Your task to perform on an android device: see tabs open on other devices in the chrome app Image 0: 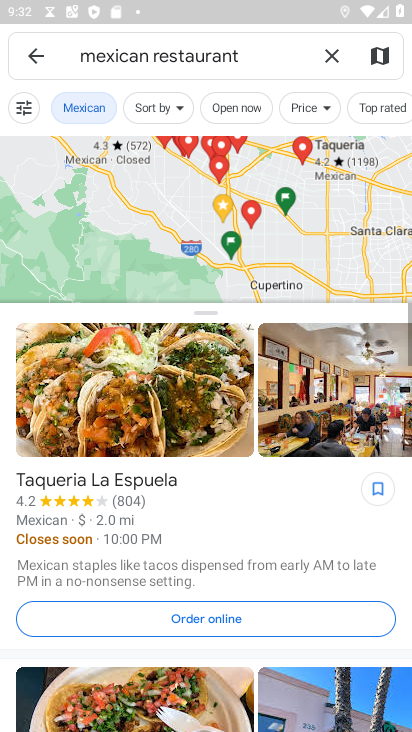
Step 0: press home button
Your task to perform on an android device: see tabs open on other devices in the chrome app Image 1: 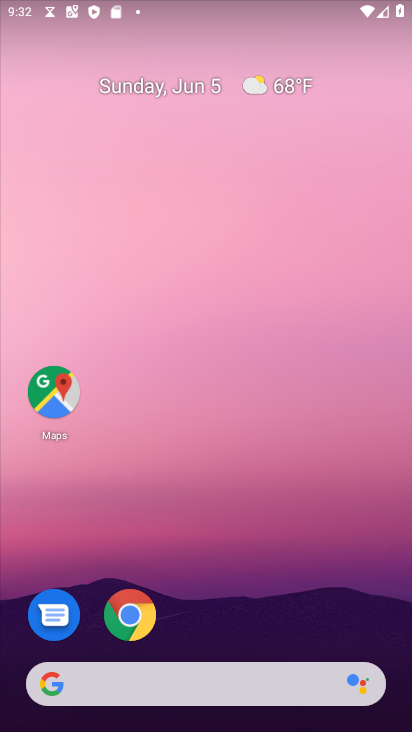
Step 1: click (148, 617)
Your task to perform on an android device: see tabs open on other devices in the chrome app Image 2: 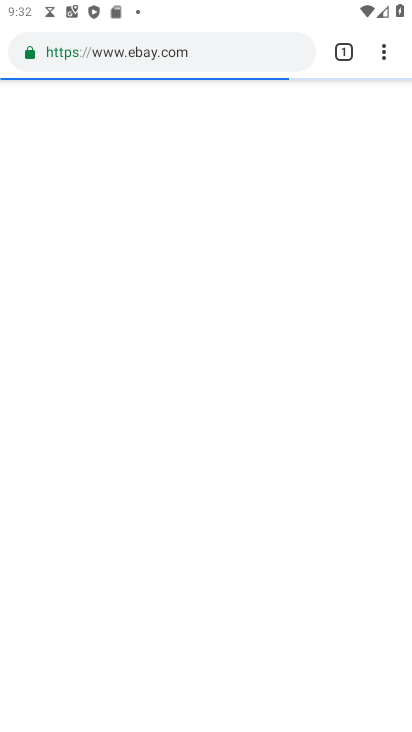
Step 2: click (393, 47)
Your task to perform on an android device: see tabs open on other devices in the chrome app Image 3: 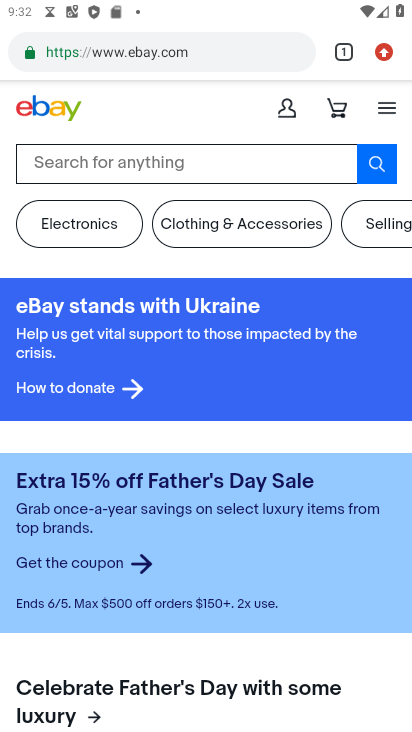
Step 3: click (376, 50)
Your task to perform on an android device: see tabs open on other devices in the chrome app Image 4: 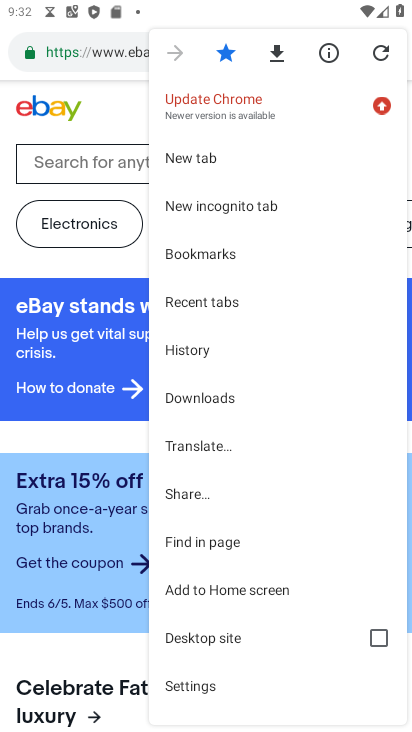
Step 4: click (213, 297)
Your task to perform on an android device: see tabs open on other devices in the chrome app Image 5: 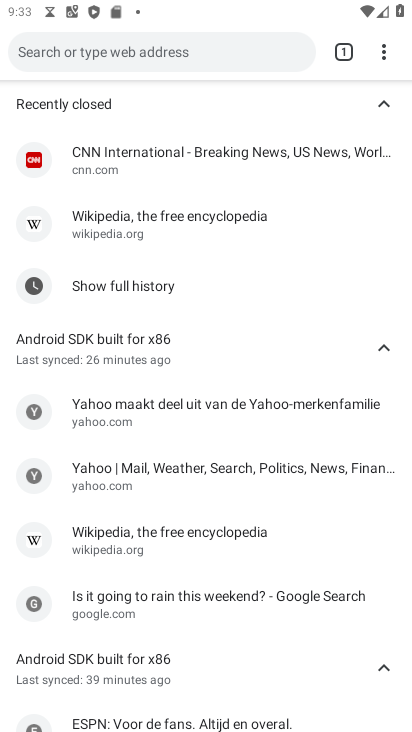
Step 5: task complete